Your task to perform on an android device: Open Amazon Image 0: 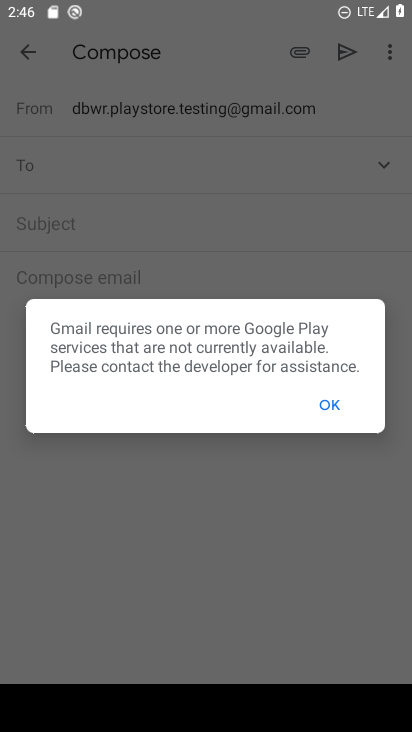
Step 0: press home button
Your task to perform on an android device: Open Amazon Image 1: 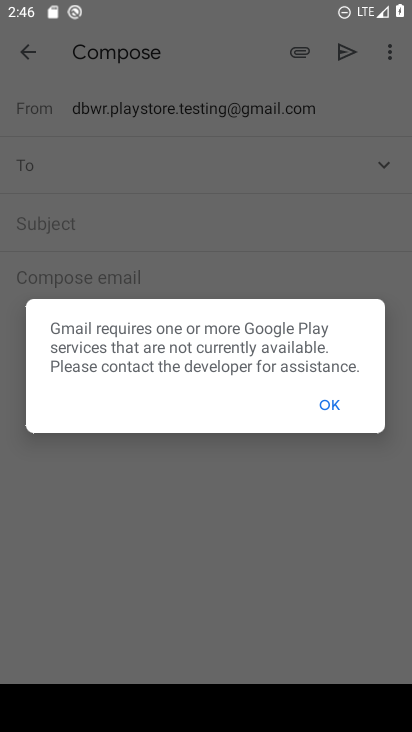
Step 1: drag from (196, 516) to (206, 49)
Your task to perform on an android device: Open Amazon Image 2: 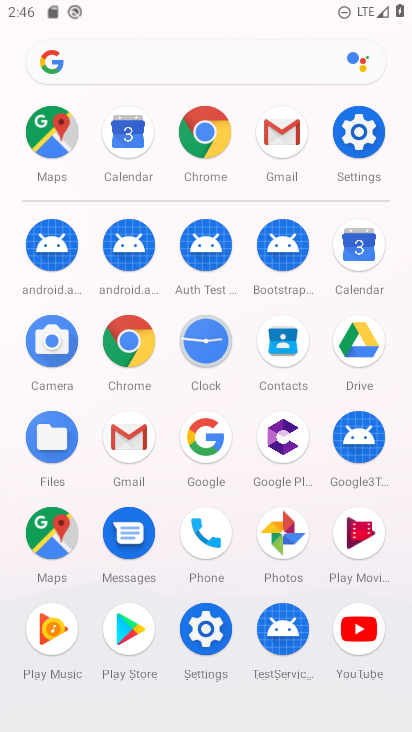
Step 2: click (128, 346)
Your task to perform on an android device: Open Amazon Image 3: 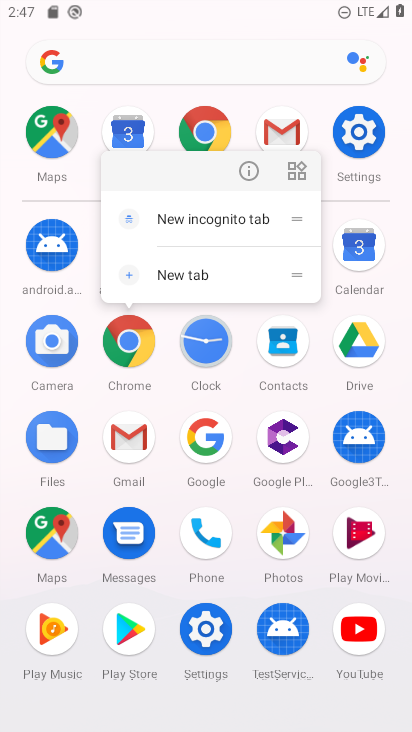
Step 3: click (248, 169)
Your task to perform on an android device: Open Amazon Image 4: 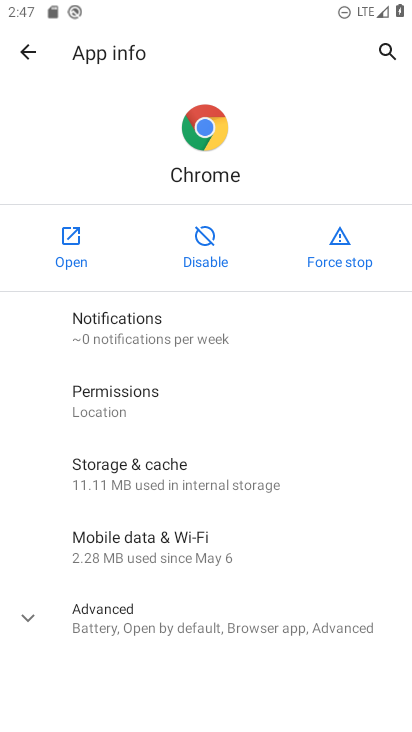
Step 4: click (68, 263)
Your task to perform on an android device: Open Amazon Image 5: 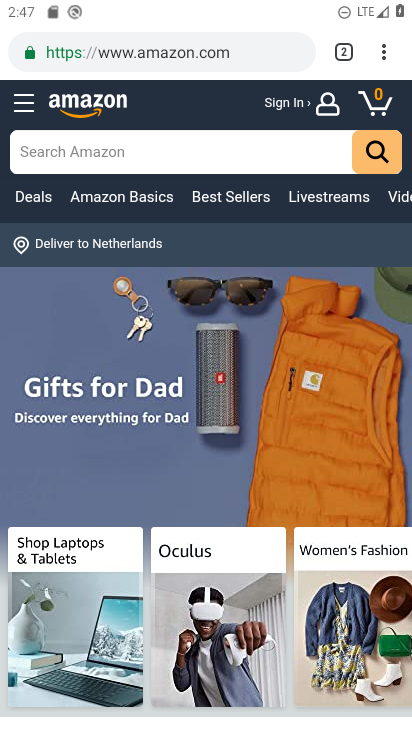
Step 5: click (387, 47)
Your task to perform on an android device: Open Amazon Image 6: 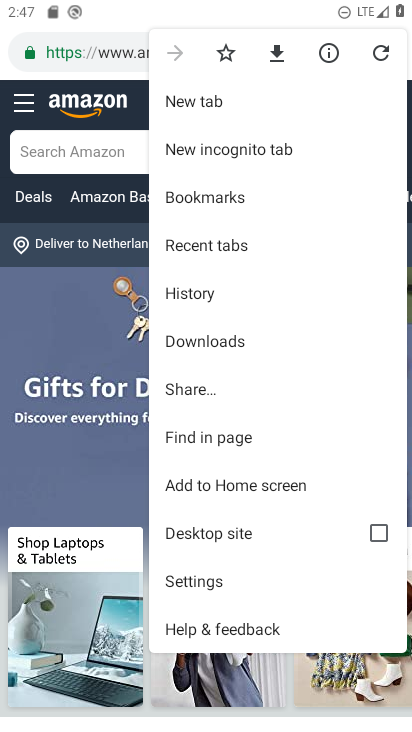
Step 6: task complete